Your task to perform on an android device: open a new tab in the chrome app Image 0: 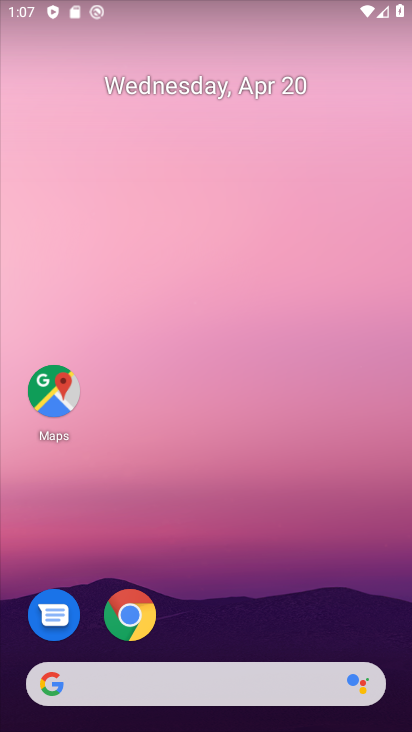
Step 0: click (123, 611)
Your task to perform on an android device: open a new tab in the chrome app Image 1: 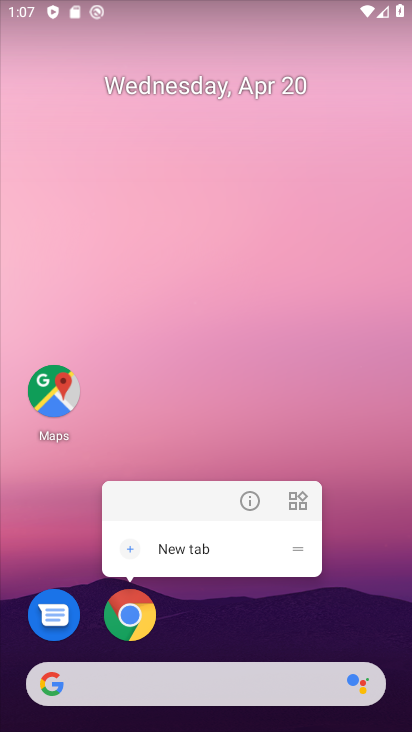
Step 1: click (118, 611)
Your task to perform on an android device: open a new tab in the chrome app Image 2: 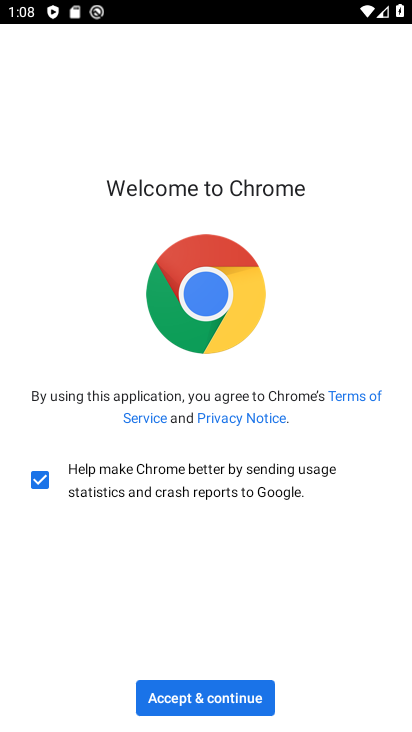
Step 2: click (161, 701)
Your task to perform on an android device: open a new tab in the chrome app Image 3: 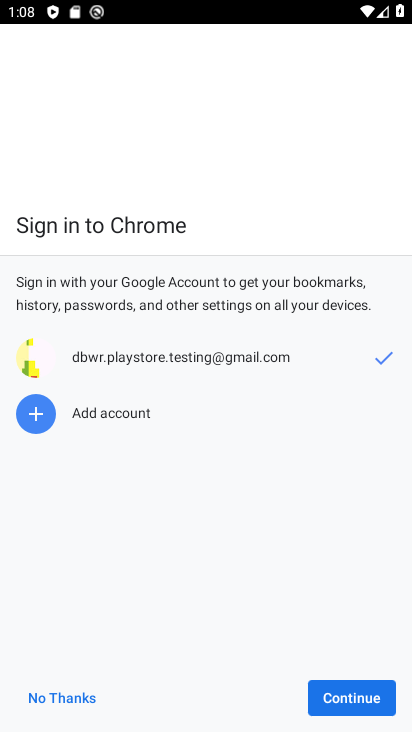
Step 3: click (327, 706)
Your task to perform on an android device: open a new tab in the chrome app Image 4: 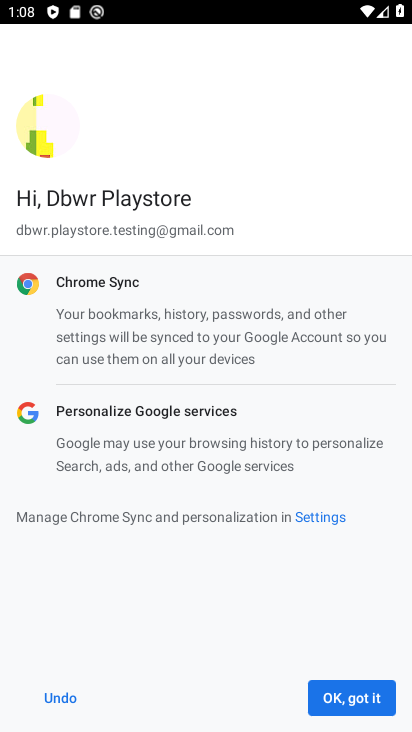
Step 4: click (327, 706)
Your task to perform on an android device: open a new tab in the chrome app Image 5: 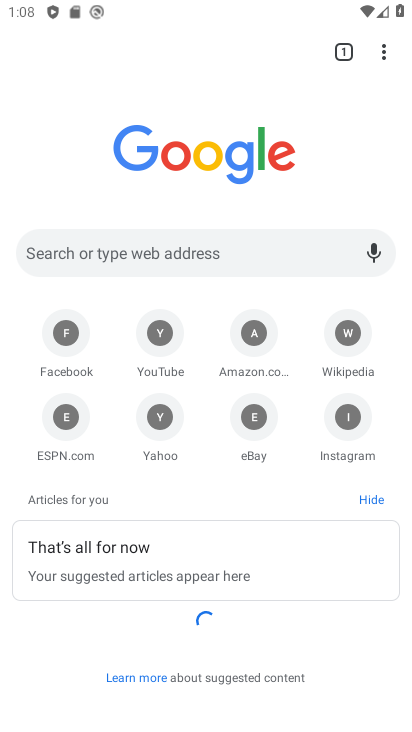
Step 5: click (376, 54)
Your task to perform on an android device: open a new tab in the chrome app Image 6: 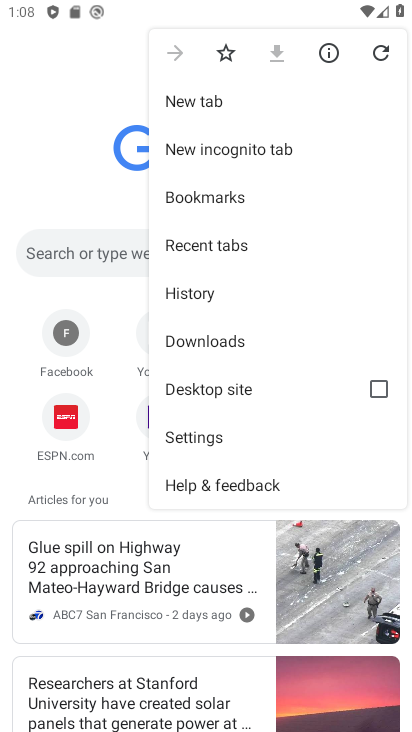
Step 6: click (276, 98)
Your task to perform on an android device: open a new tab in the chrome app Image 7: 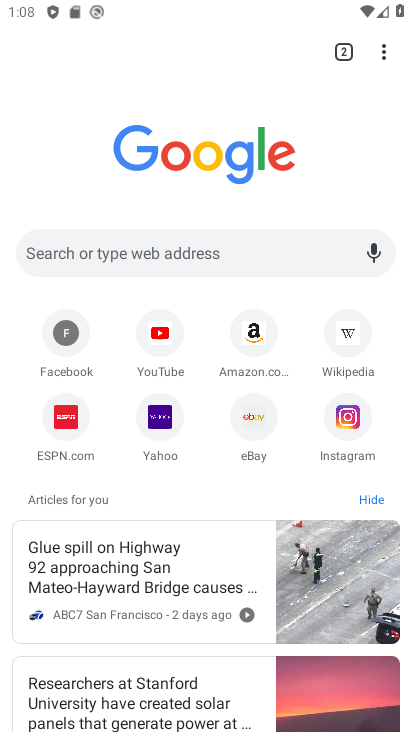
Step 7: task complete